Your task to perform on an android device: change notification settings in the gmail app Image 0: 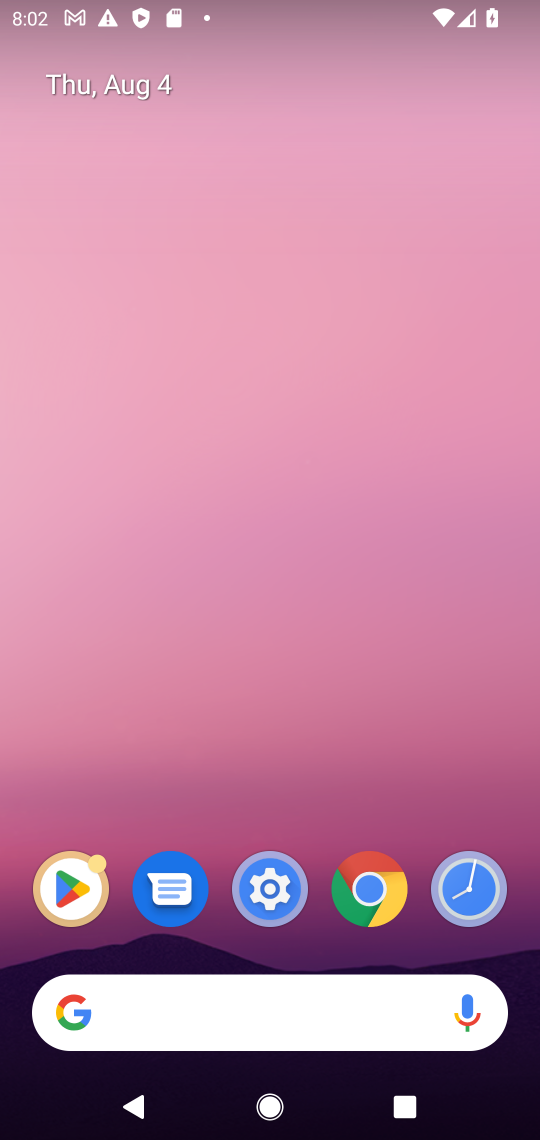
Step 0: drag from (217, 908) to (232, 364)
Your task to perform on an android device: change notification settings in the gmail app Image 1: 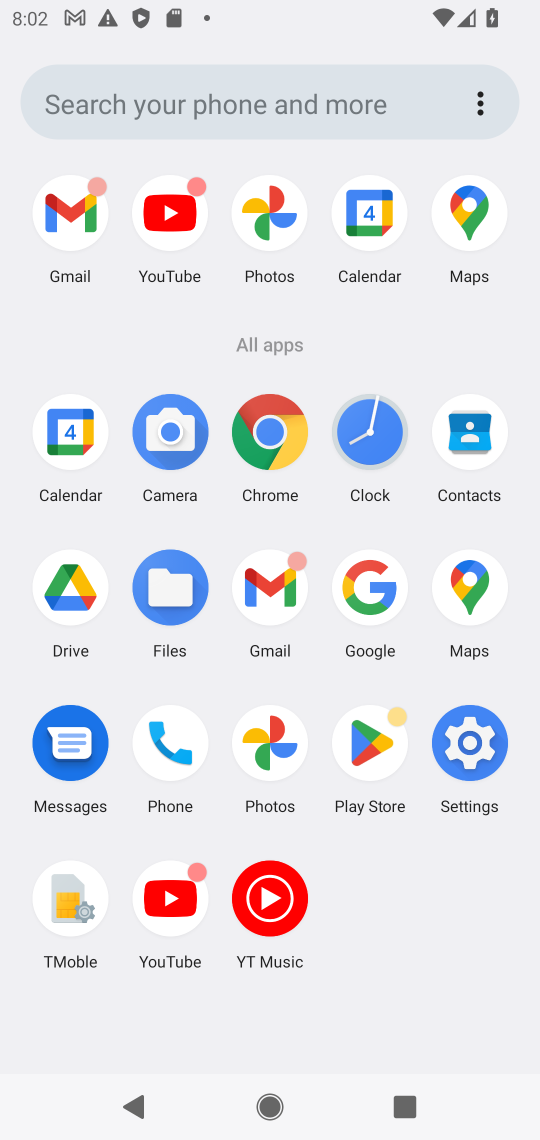
Step 1: click (277, 593)
Your task to perform on an android device: change notification settings in the gmail app Image 2: 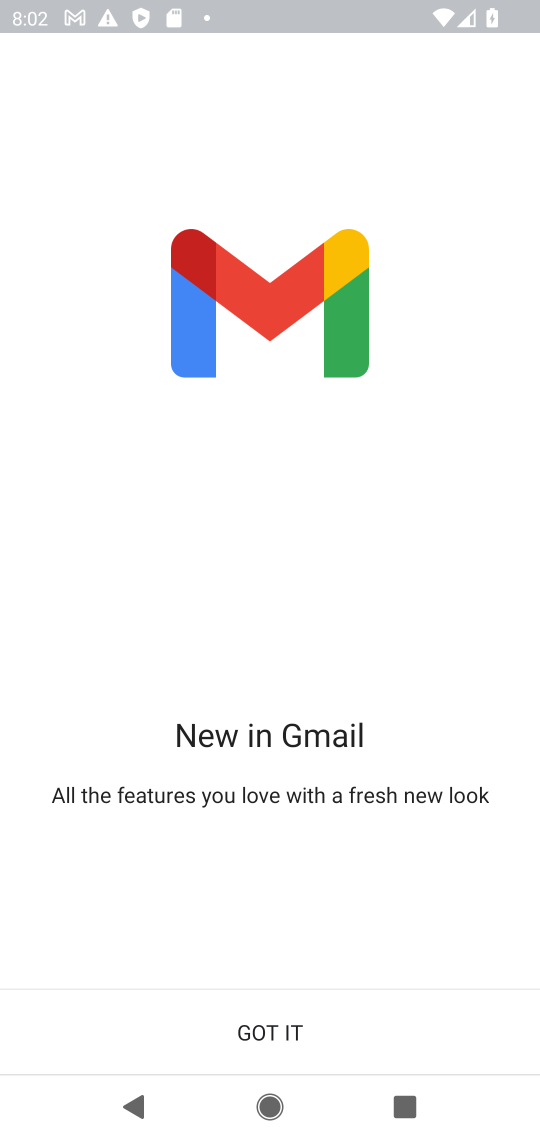
Step 2: click (264, 1013)
Your task to perform on an android device: change notification settings in the gmail app Image 3: 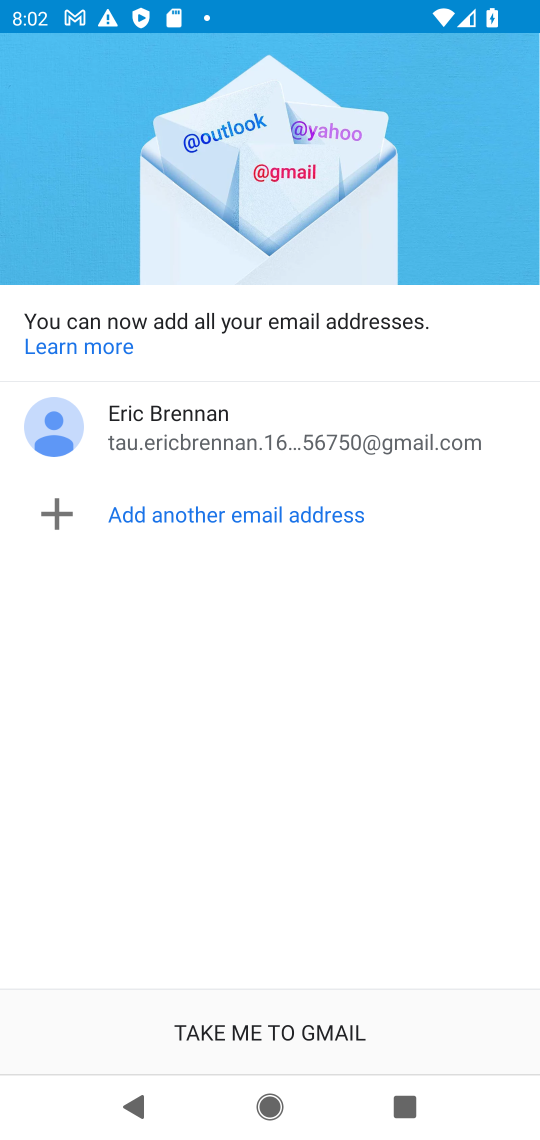
Step 3: click (264, 1013)
Your task to perform on an android device: change notification settings in the gmail app Image 4: 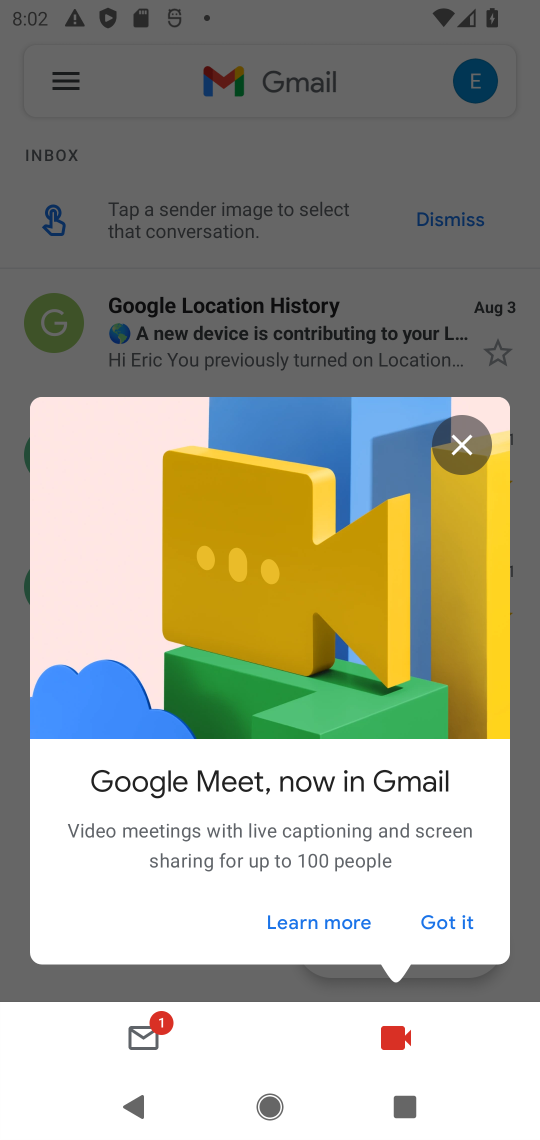
Step 4: click (440, 914)
Your task to perform on an android device: change notification settings in the gmail app Image 5: 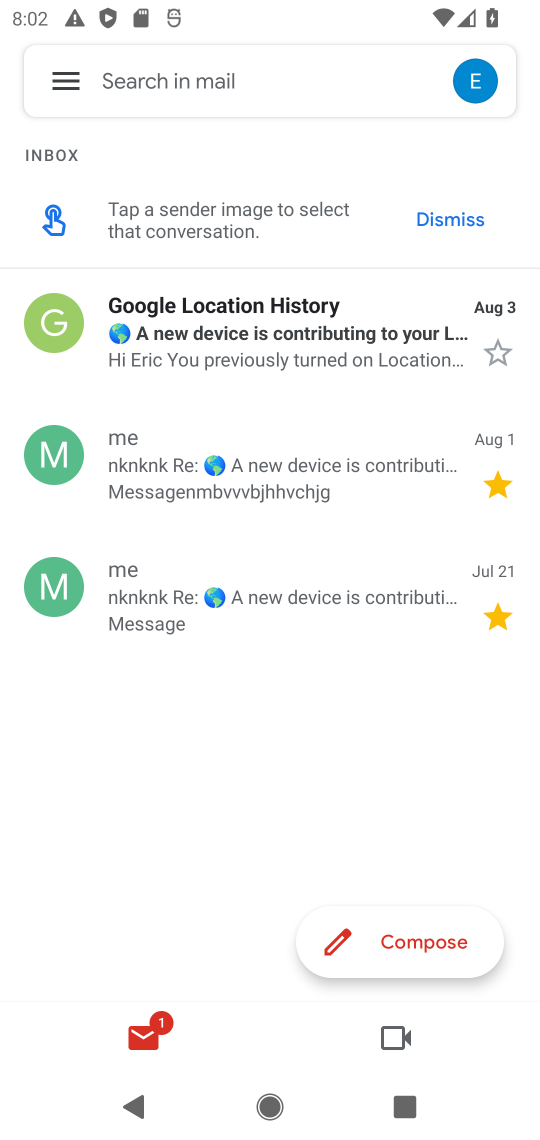
Step 5: click (59, 62)
Your task to perform on an android device: change notification settings in the gmail app Image 6: 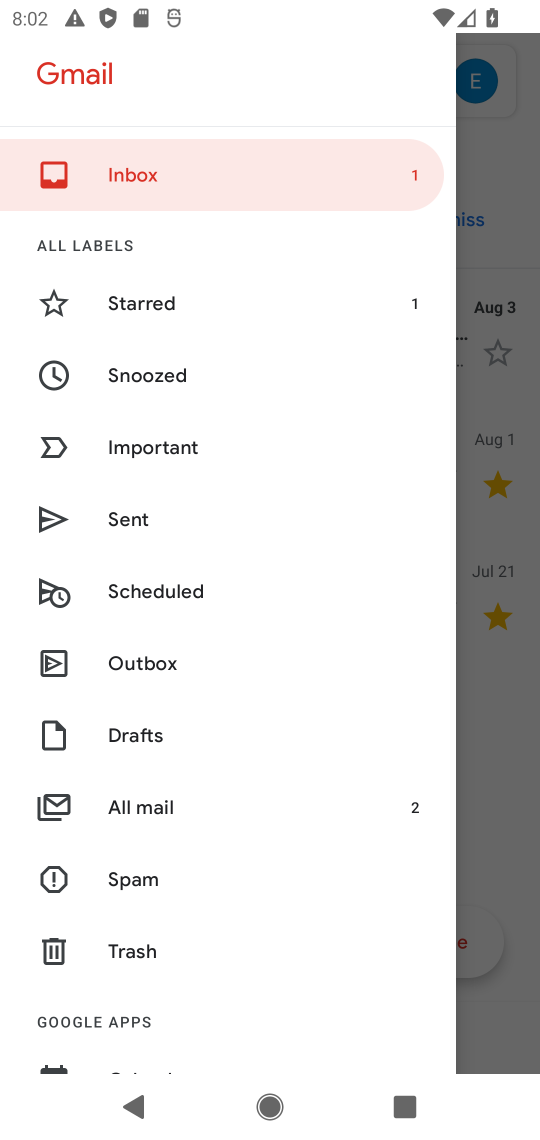
Step 6: drag from (138, 751) to (136, 669)
Your task to perform on an android device: change notification settings in the gmail app Image 7: 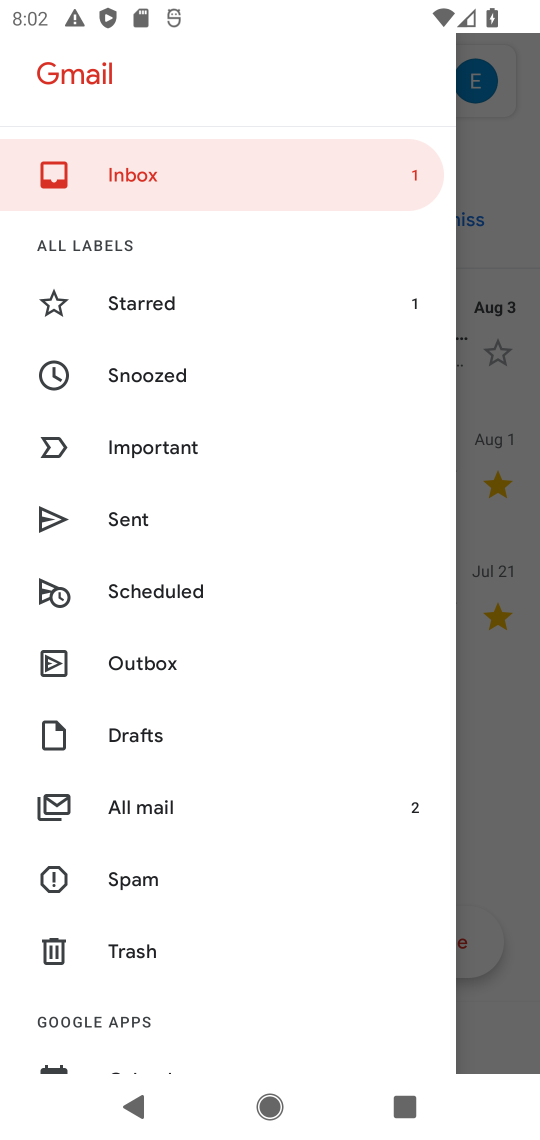
Step 7: drag from (143, 983) to (130, 502)
Your task to perform on an android device: change notification settings in the gmail app Image 8: 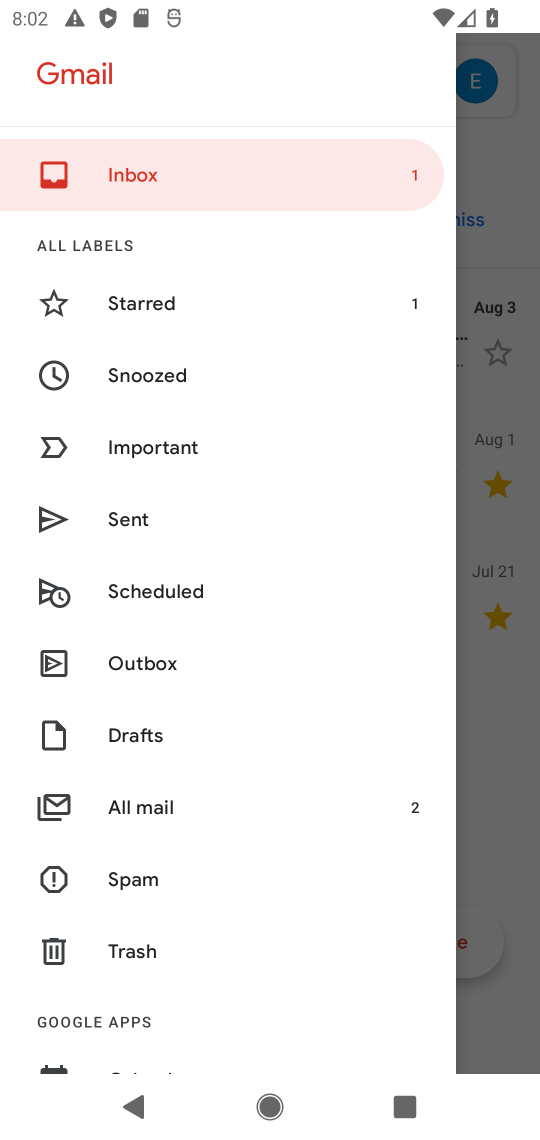
Step 8: drag from (165, 991) to (94, 415)
Your task to perform on an android device: change notification settings in the gmail app Image 9: 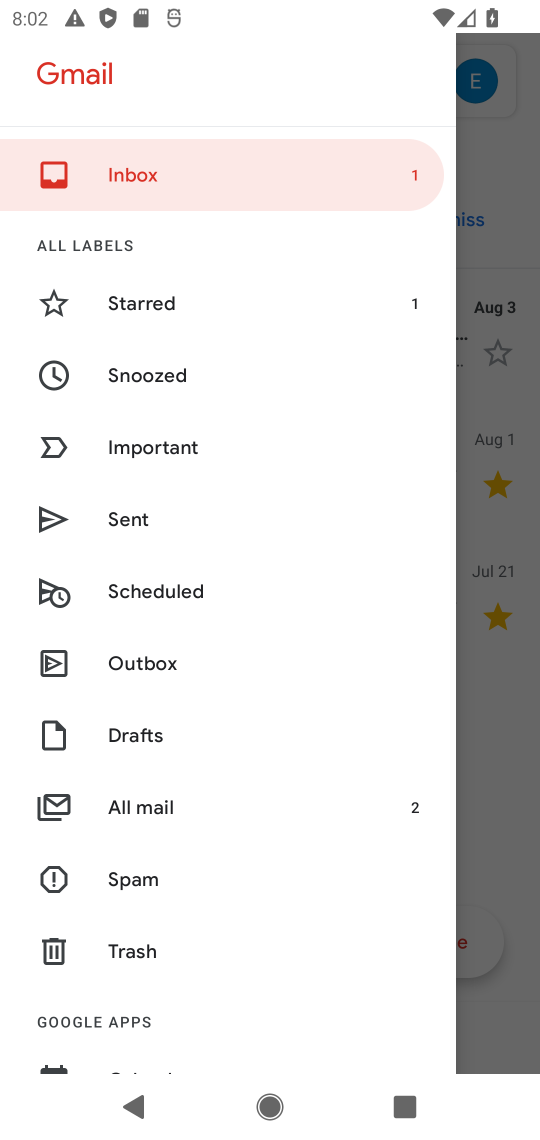
Step 9: drag from (126, 954) to (126, 430)
Your task to perform on an android device: change notification settings in the gmail app Image 10: 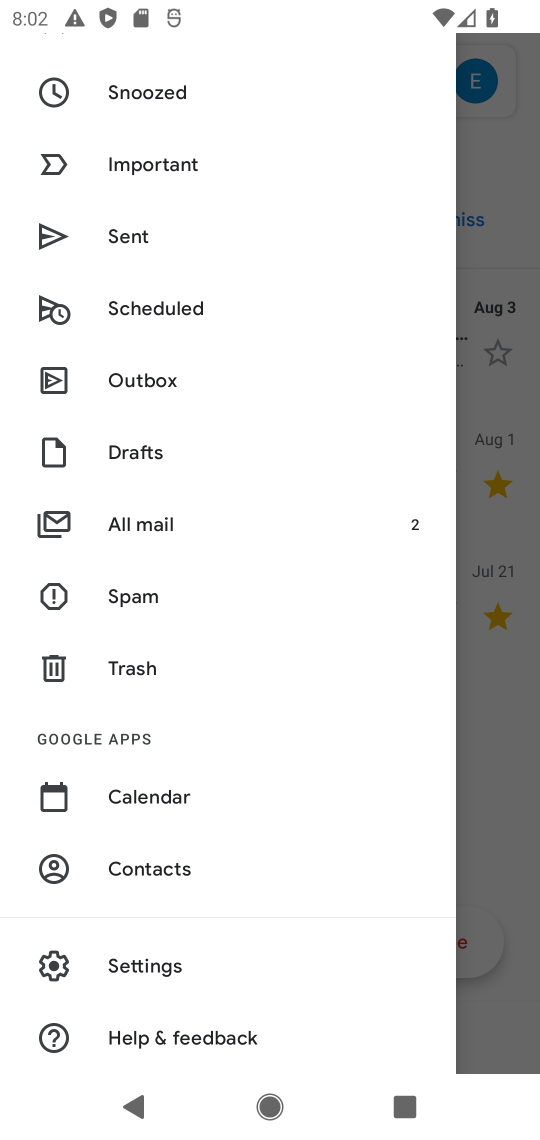
Step 10: click (145, 964)
Your task to perform on an android device: change notification settings in the gmail app Image 11: 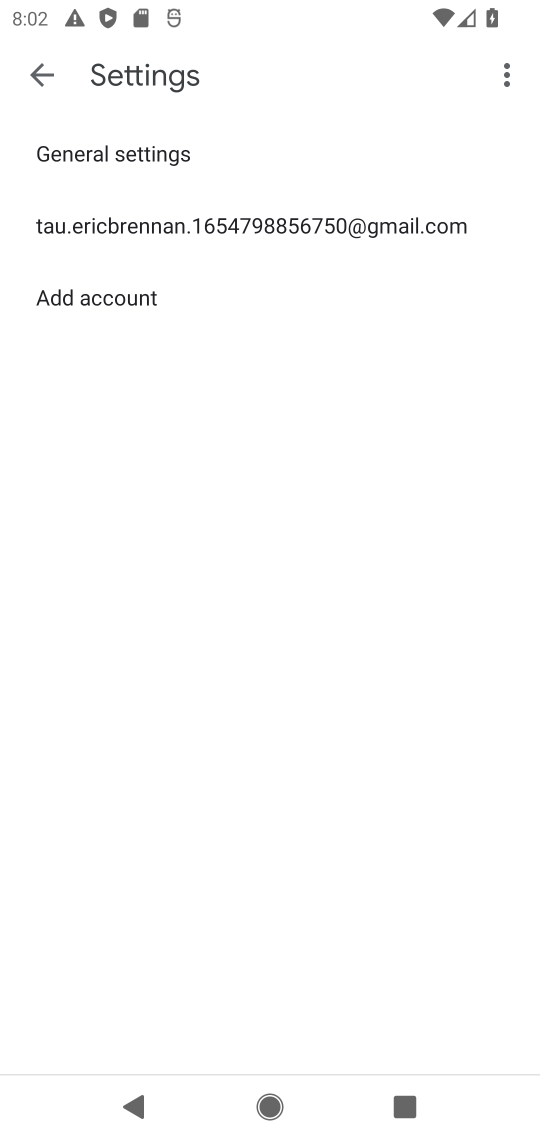
Step 11: click (124, 234)
Your task to perform on an android device: change notification settings in the gmail app Image 12: 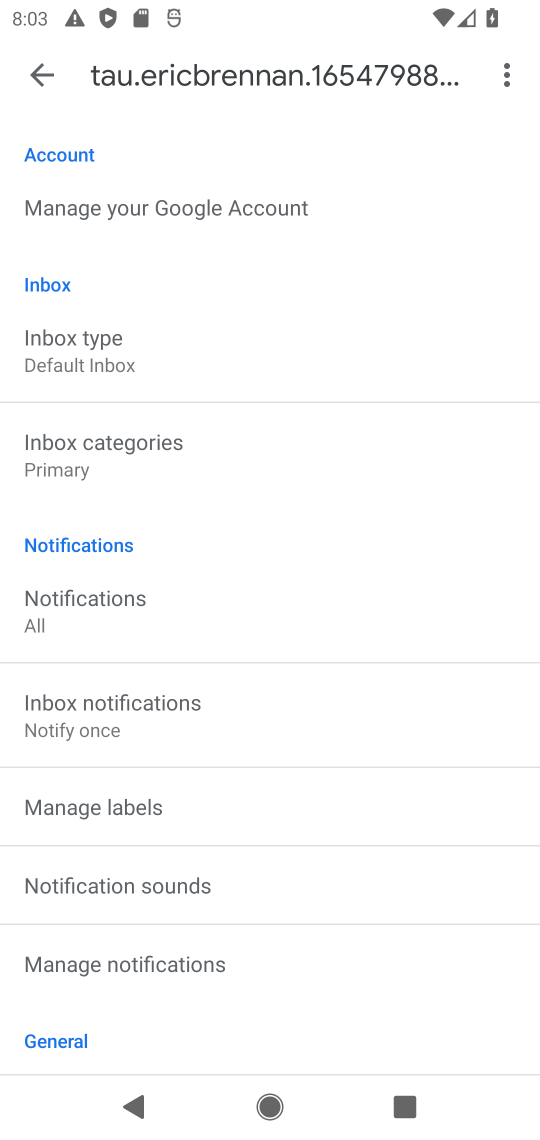
Step 12: click (96, 622)
Your task to perform on an android device: change notification settings in the gmail app Image 13: 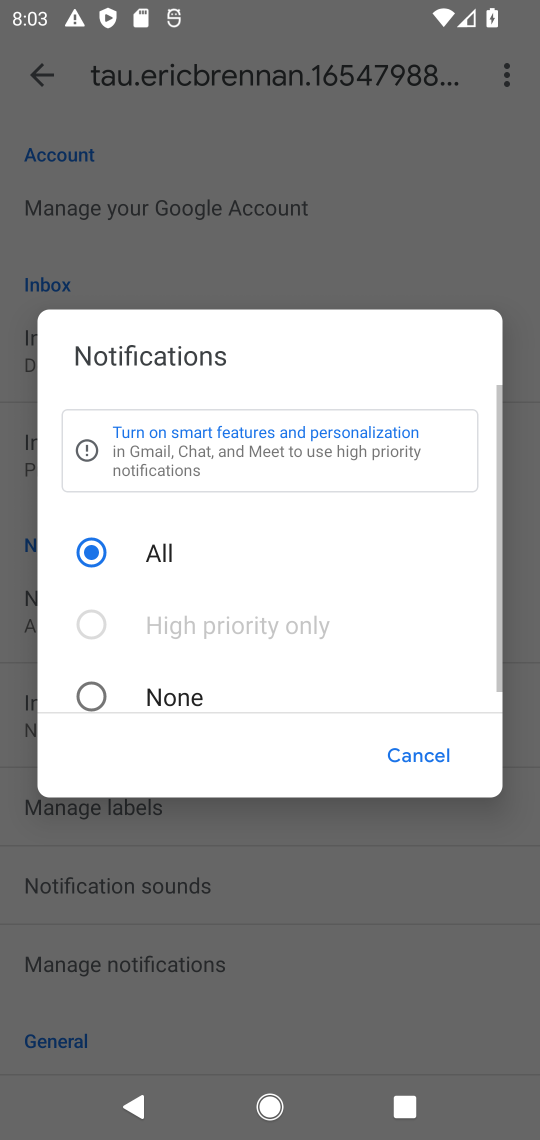
Step 13: click (96, 693)
Your task to perform on an android device: change notification settings in the gmail app Image 14: 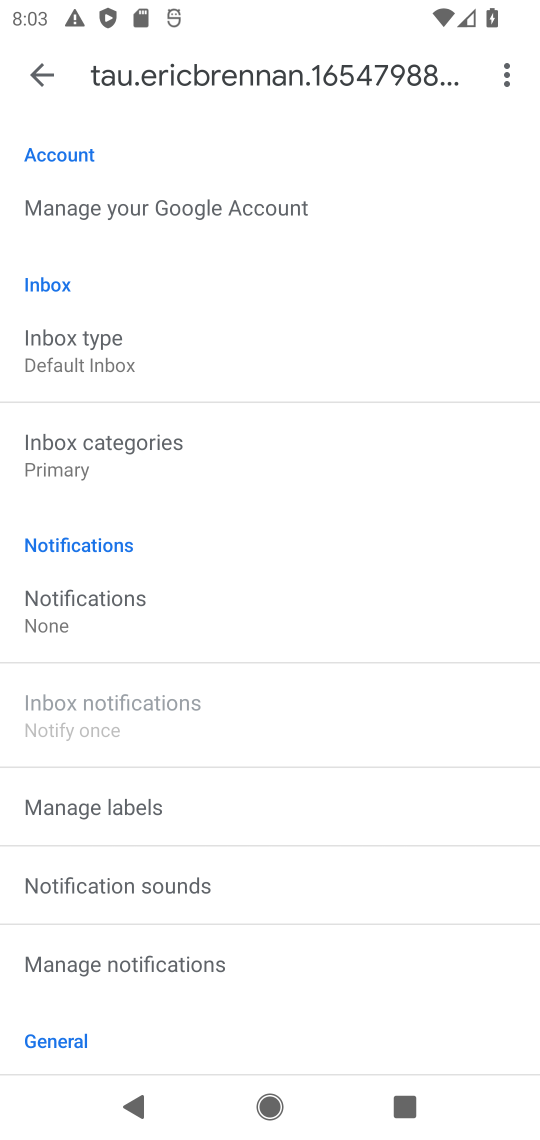
Step 14: task complete